Your task to perform on an android device: Open location settings Image 0: 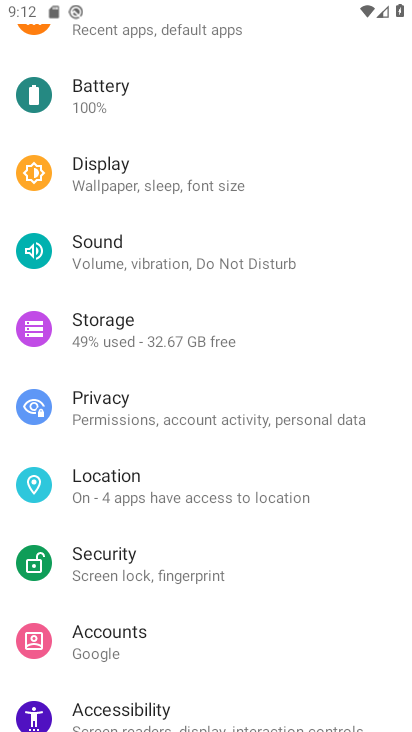
Step 0: drag from (263, 509) to (157, 118)
Your task to perform on an android device: Open location settings Image 1: 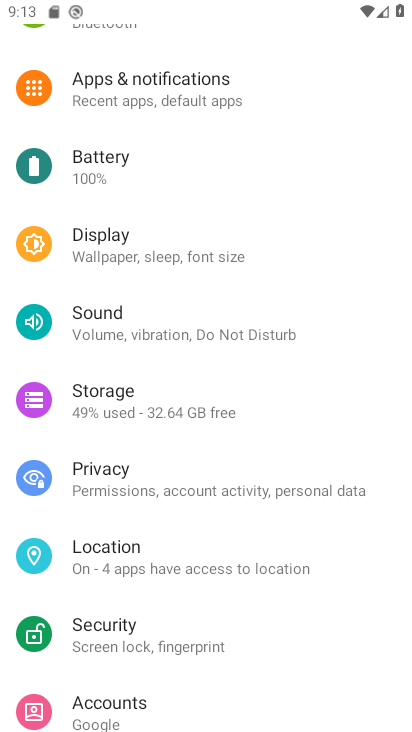
Step 1: click (99, 537)
Your task to perform on an android device: Open location settings Image 2: 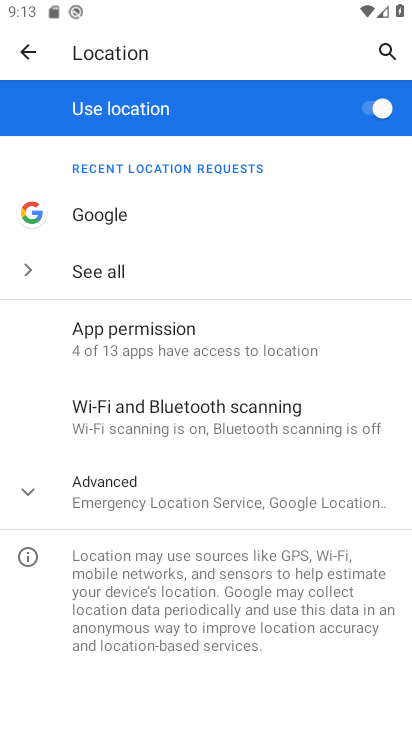
Step 2: task complete